Your task to perform on an android device: Open the stopwatch Image 0: 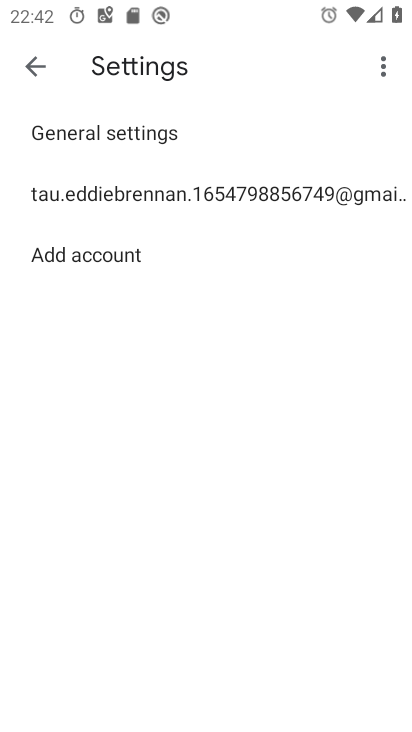
Step 0: press home button
Your task to perform on an android device: Open the stopwatch Image 1: 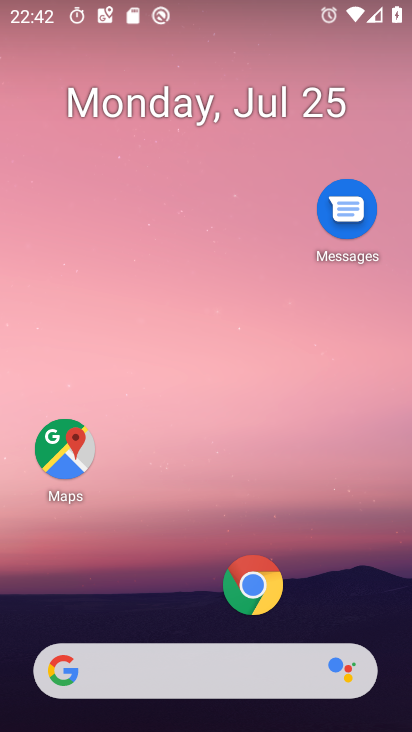
Step 1: drag from (175, 674) to (264, 122)
Your task to perform on an android device: Open the stopwatch Image 2: 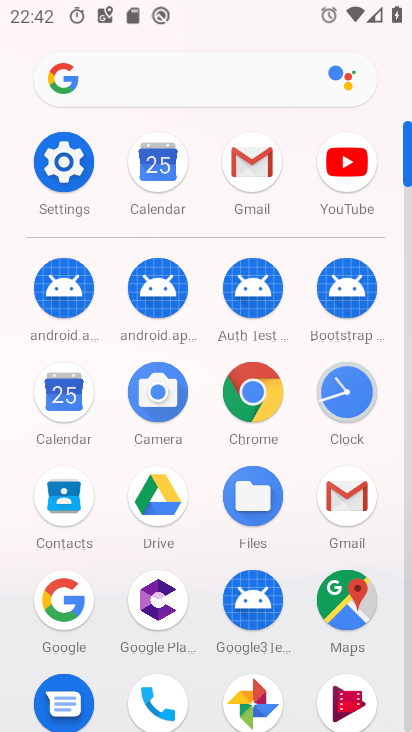
Step 2: click (345, 385)
Your task to perform on an android device: Open the stopwatch Image 3: 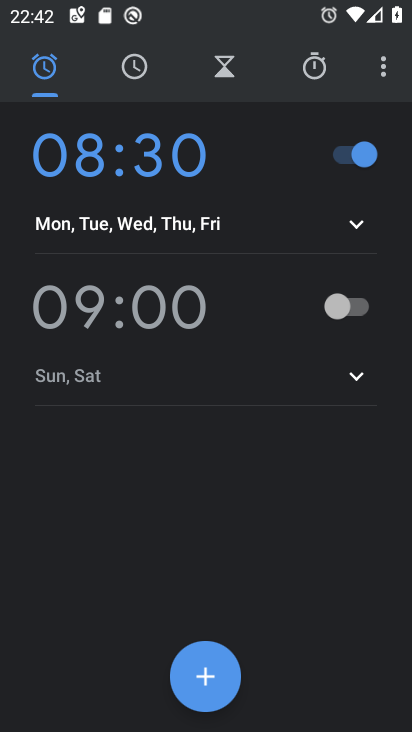
Step 3: click (310, 74)
Your task to perform on an android device: Open the stopwatch Image 4: 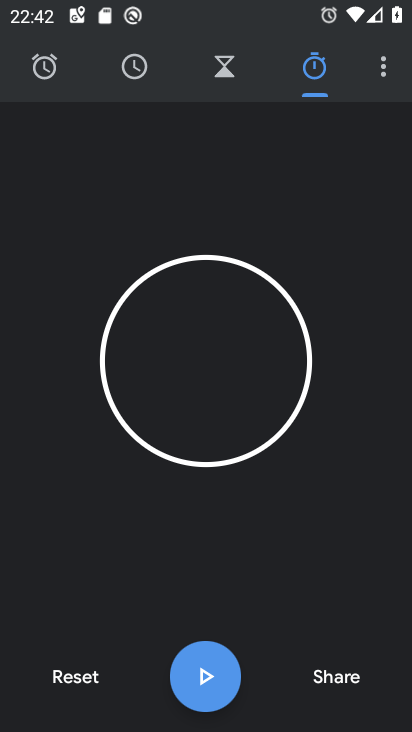
Step 4: task complete